Your task to perform on an android device: Go to Maps Image 0: 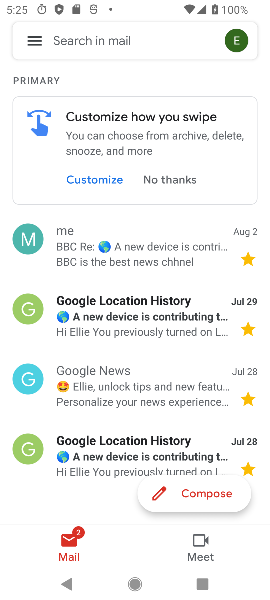
Step 0: press back button
Your task to perform on an android device: Go to Maps Image 1: 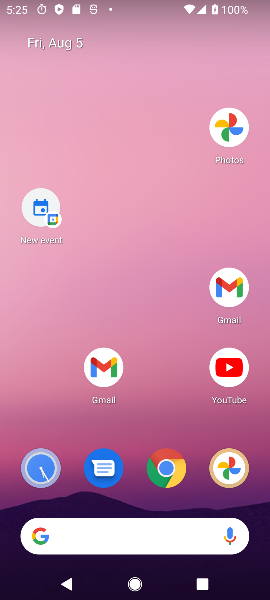
Step 1: drag from (162, 511) to (108, 144)
Your task to perform on an android device: Go to Maps Image 2: 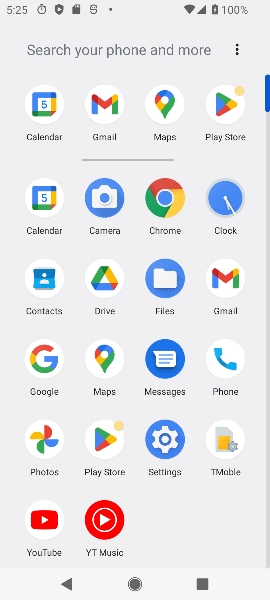
Step 2: click (99, 365)
Your task to perform on an android device: Go to Maps Image 3: 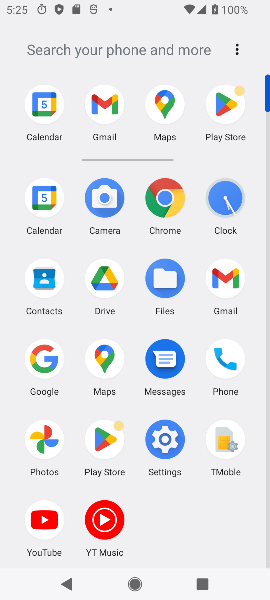
Step 3: click (99, 365)
Your task to perform on an android device: Go to Maps Image 4: 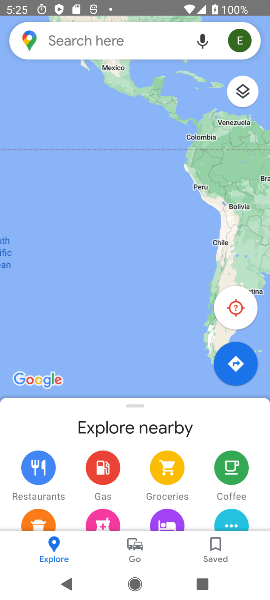
Step 4: click (99, 365)
Your task to perform on an android device: Go to Maps Image 5: 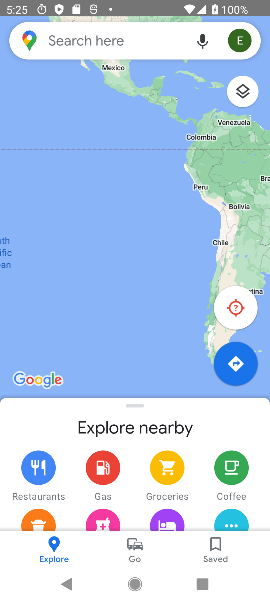
Step 5: task complete